Your task to perform on an android device: change notifications settings Image 0: 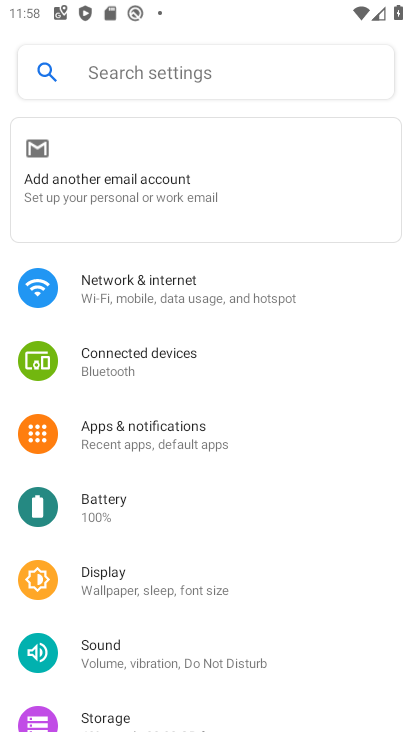
Step 0: click (175, 430)
Your task to perform on an android device: change notifications settings Image 1: 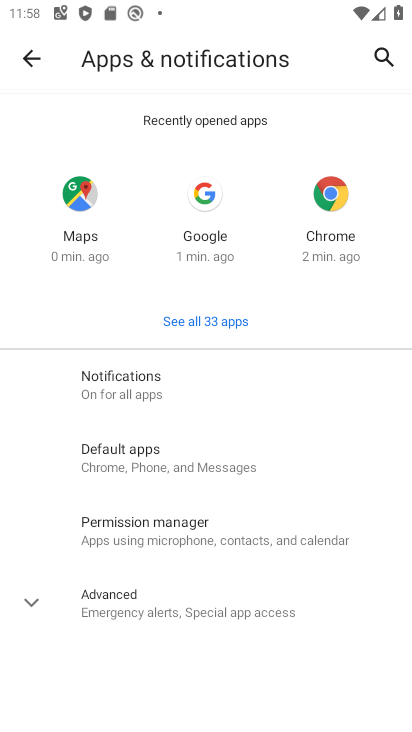
Step 1: click (163, 389)
Your task to perform on an android device: change notifications settings Image 2: 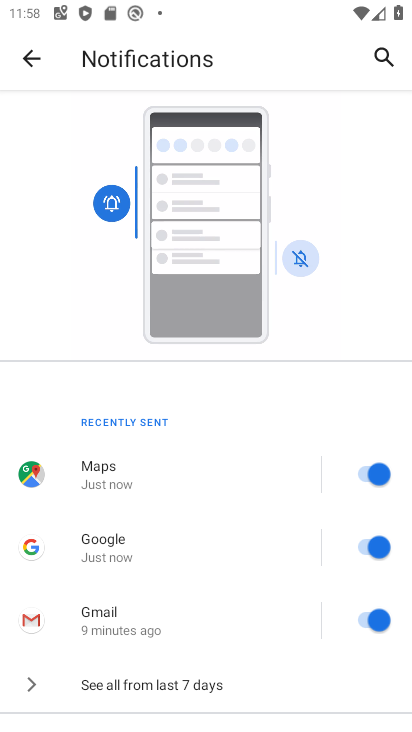
Step 2: click (177, 681)
Your task to perform on an android device: change notifications settings Image 3: 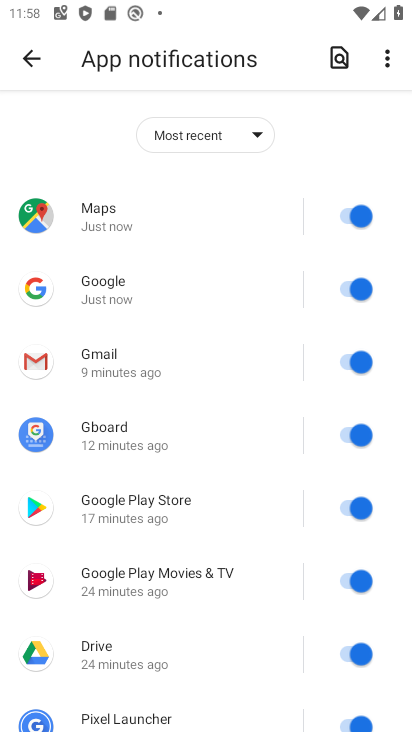
Step 3: click (351, 213)
Your task to perform on an android device: change notifications settings Image 4: 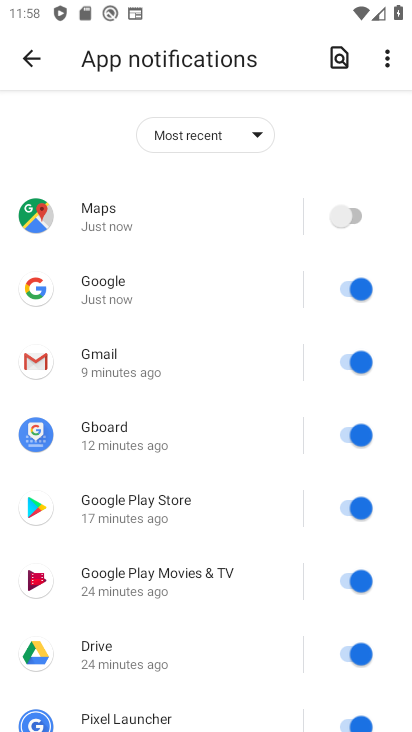
Step 4: click (350, 285)
Your task to perform on an android device: change notifications settings Image 5: 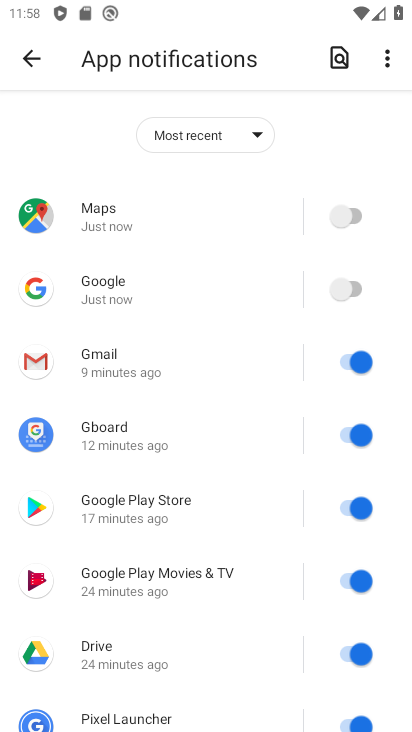
Step 5: click (350, 350)
Your task to perform on an android device: change notifications settings Image 6: 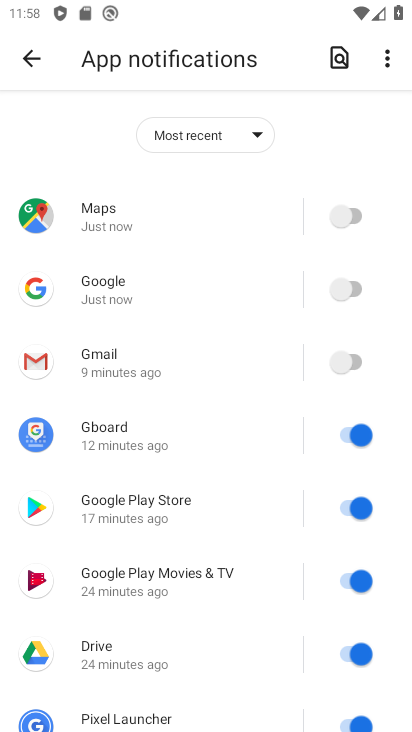
Step 6: click (351, 423)
Your task to perform on an android device: change notifications settings Image 7: 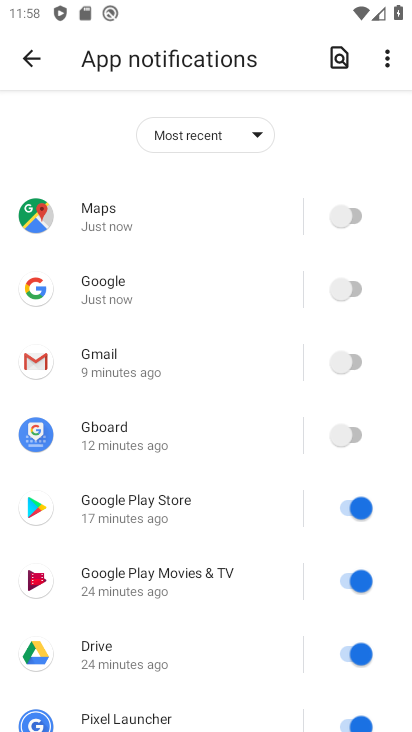
Step 7: click (351, 498)
Your task to perform on an android device: change notifications settings Image 8: 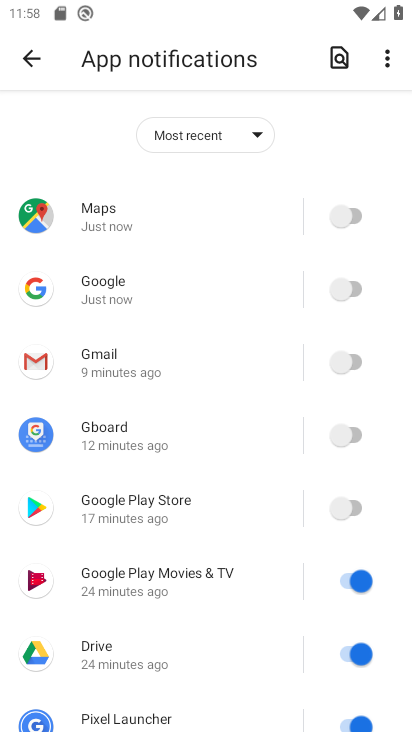
Step 8: click (353, 574)
Your task to perform on an android device: change notifications settings Image 9: 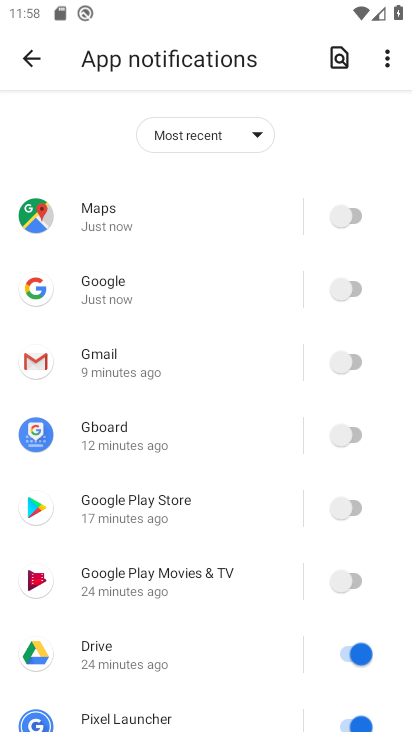
Step 9: click (350, 644)
Your task to perform on an android device: change notifications settings Image 10: 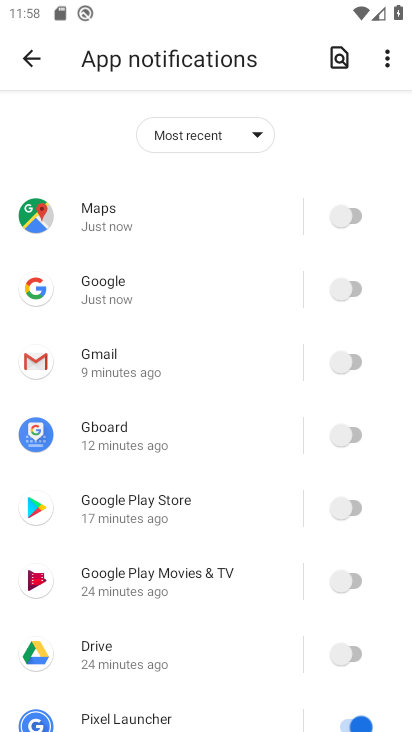
Step 10: click (345, 713)
Your task to perform on an android device: change notifications settings Image 11: 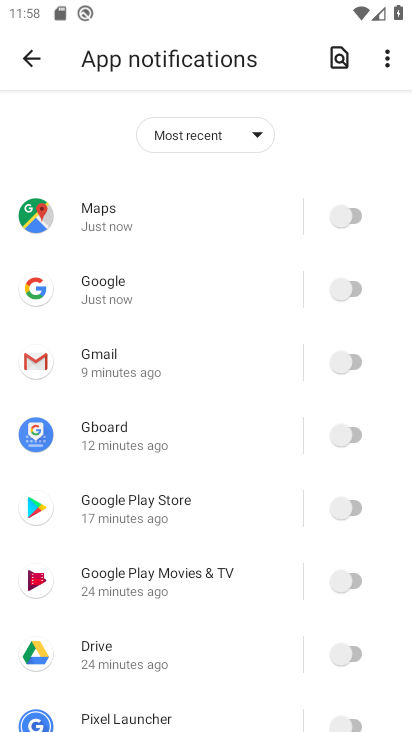
Step 11: task complete